Your task to perform on an android device: turn notification dots on Image 0: 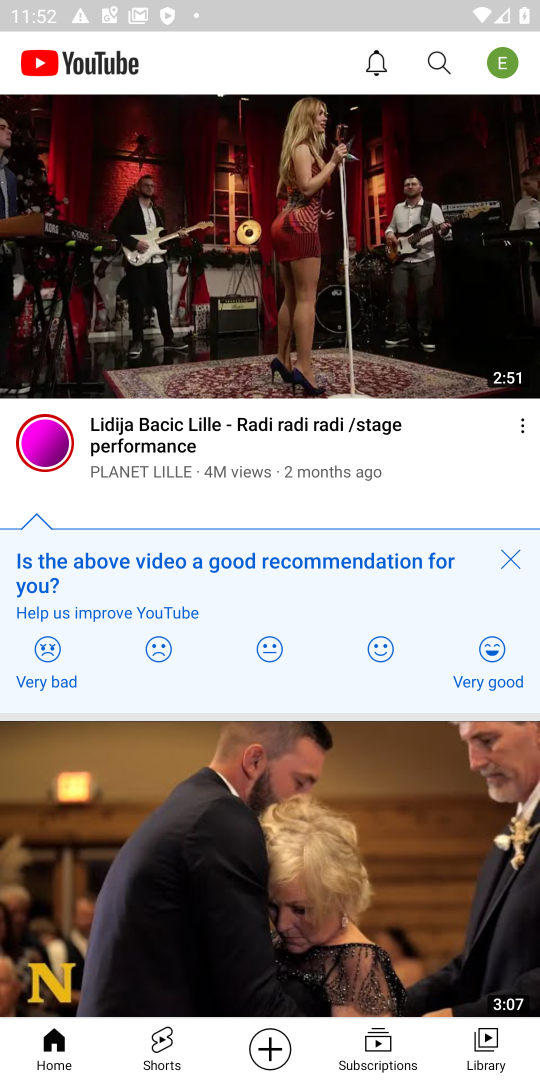
Step 0: press home button
Your task to perform on an android device: turn notification dots on Image 1: 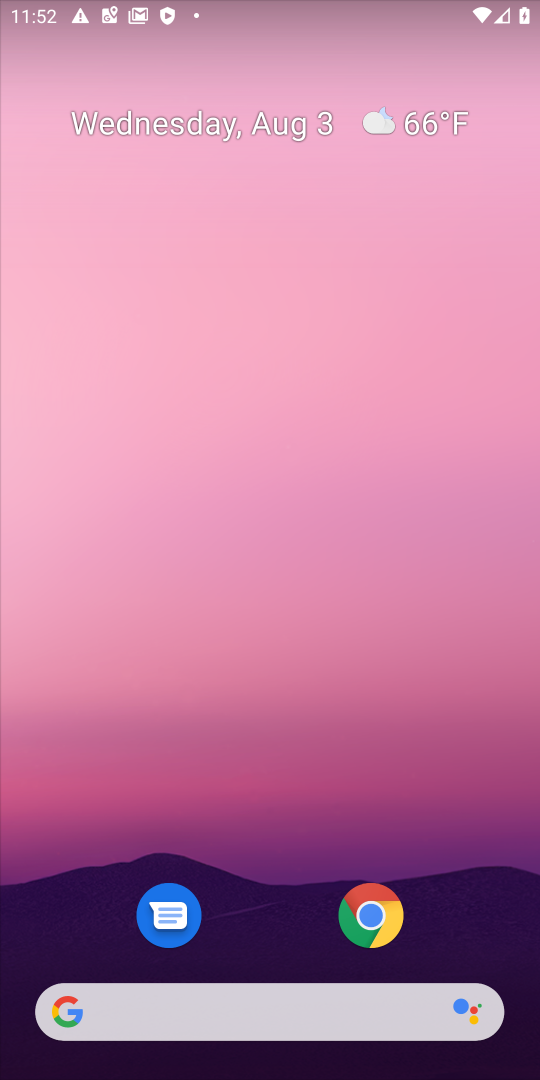
Step 1: drag from (313, 147) to (321, 40)
Your task to perform on an android device: turn notification dots on Image 2: 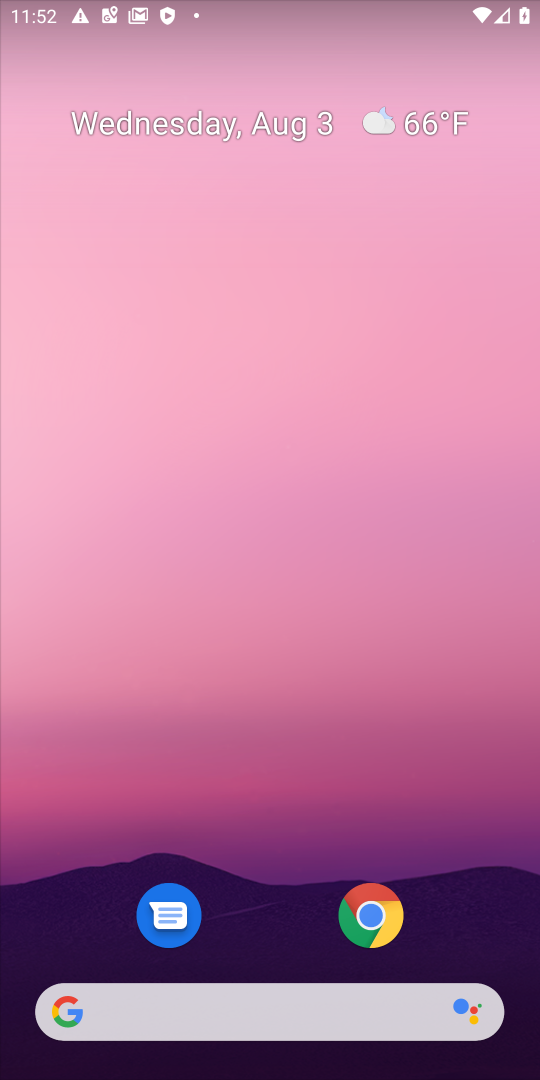
Step 2: drag from (306, 825) to (374, 74)
Your task to perform on an android device: turn notification dots on Image 3: 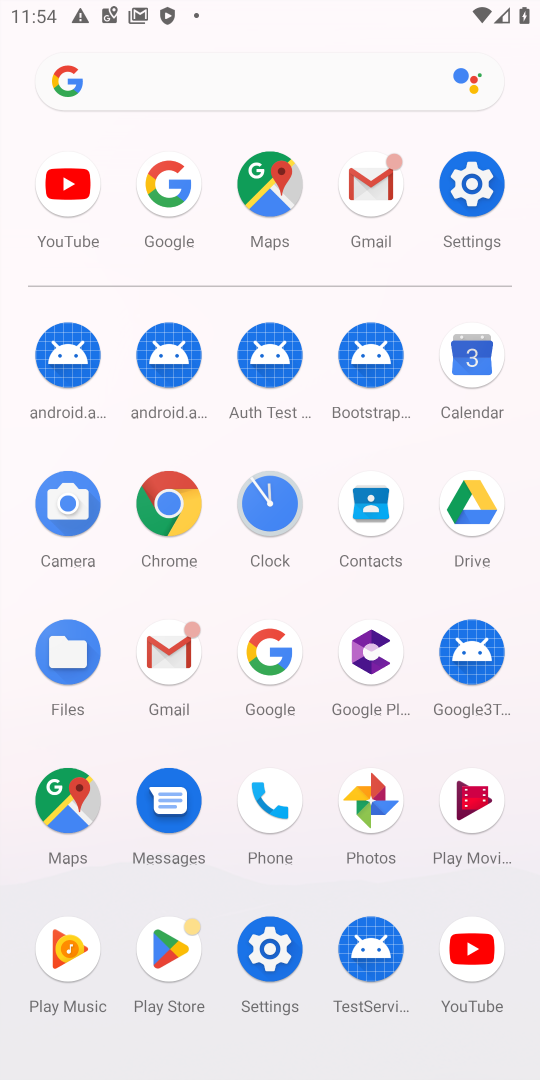
Step 3: click (475, 179)
Your task to perform on an android device: turn notification dots on Image 4: 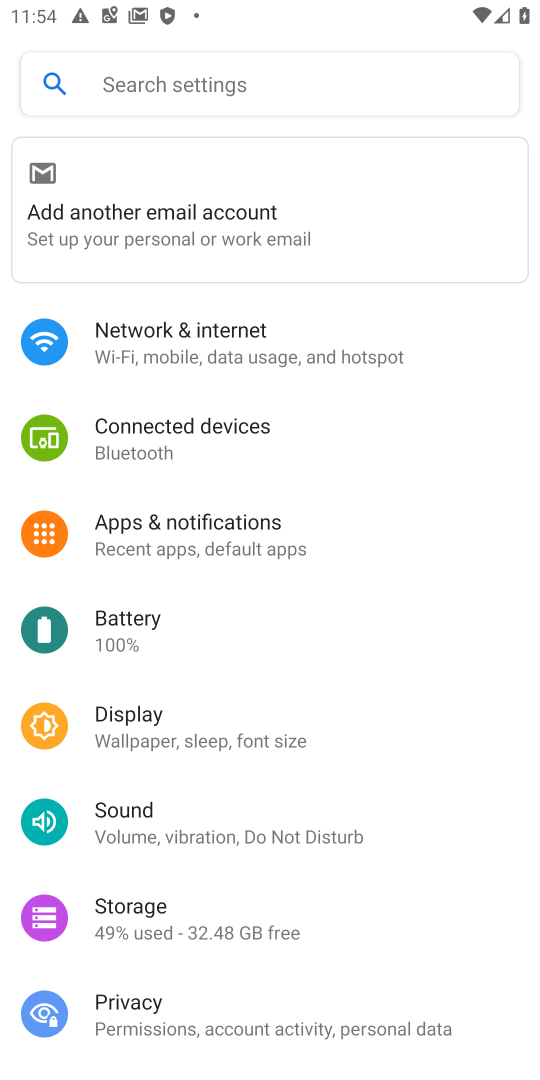
Step 4: click (93, 531)
Your task to perform on an android device: turn notification dots on Image 5: 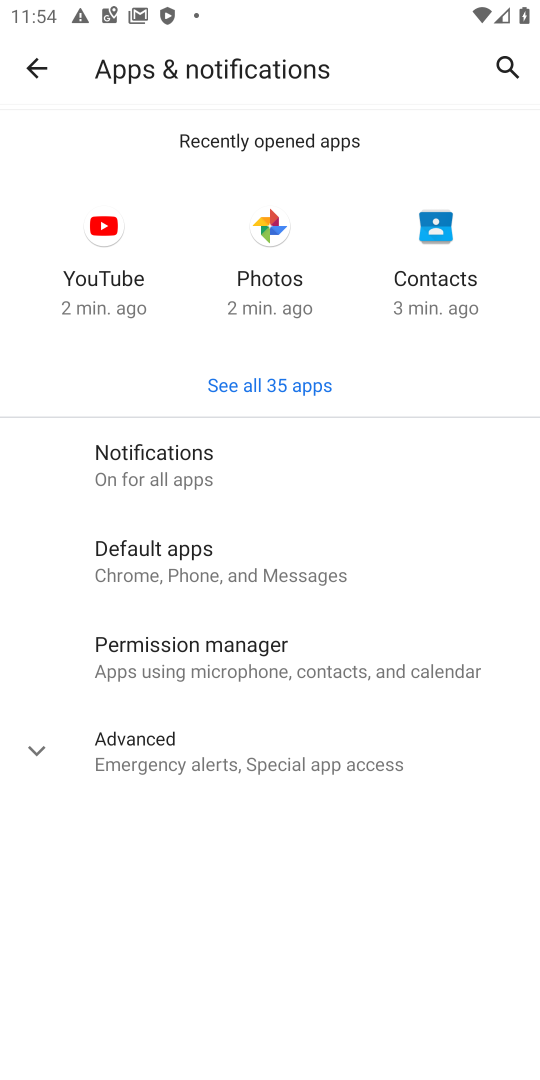
Step 5: click (111, 743)
Your task to perform on an android device: turn notification dots on Image 6: 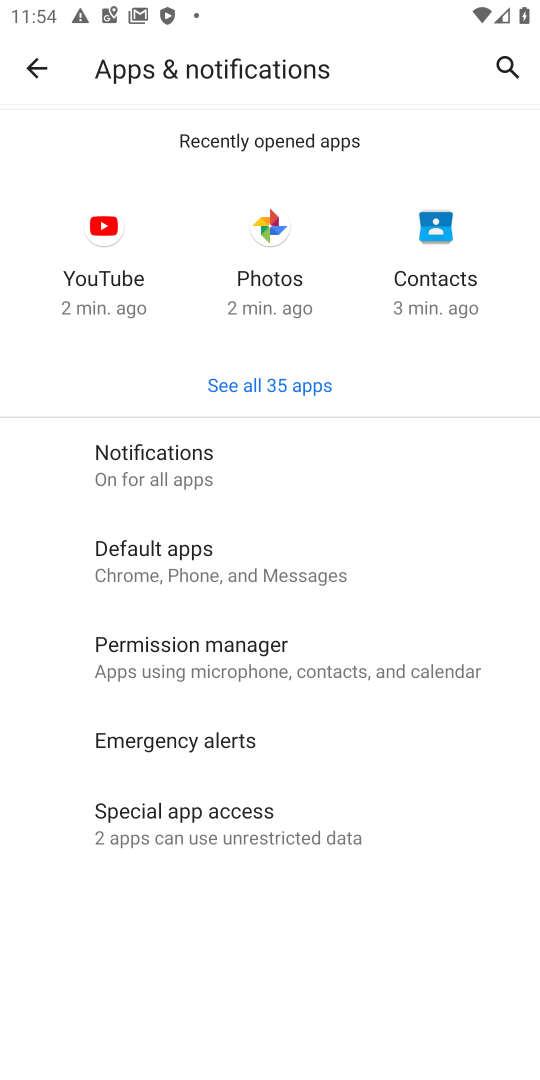
Step 6: click (170, 445)
Your task to perform on an android device: turn notification dots on Image 7: 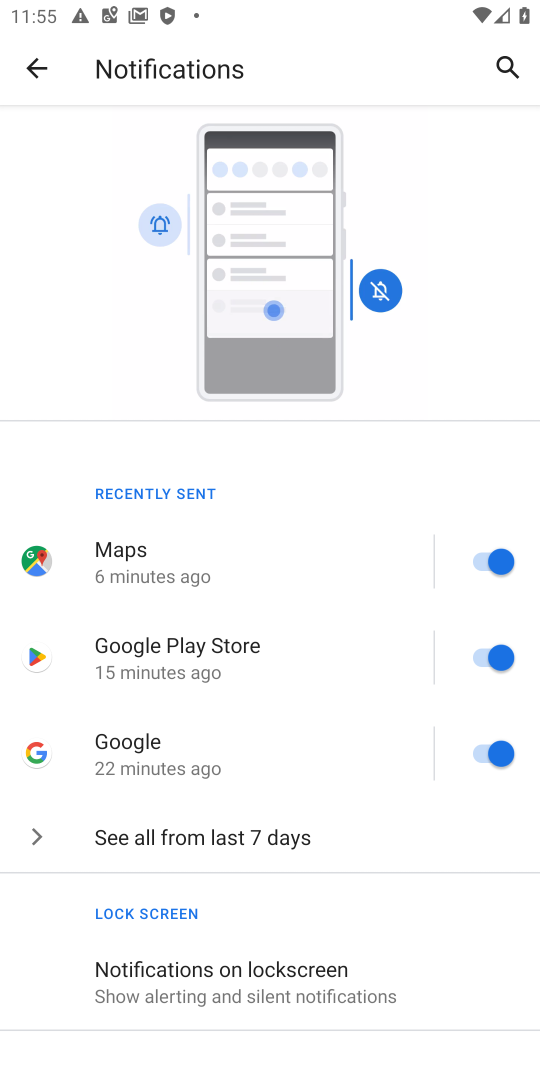
Step 7: drag from (323, 566) to (323, 396)
Your task to perform on an android device: turn notification dots on Image 8: 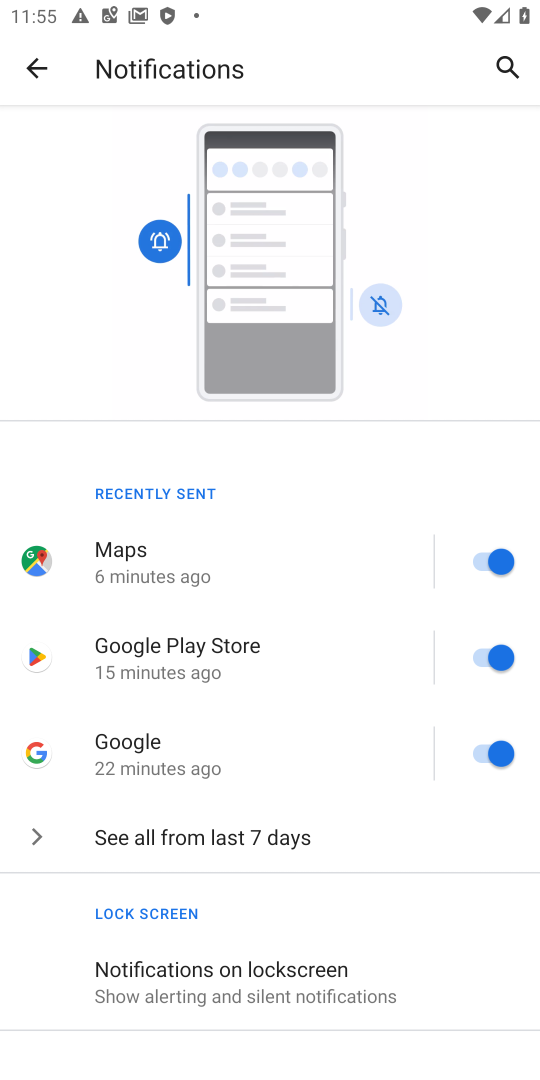
Step 8: drag from (217, 916) to (258, 476)
Your task to perform on an android device: turn notification dots on Image 9: 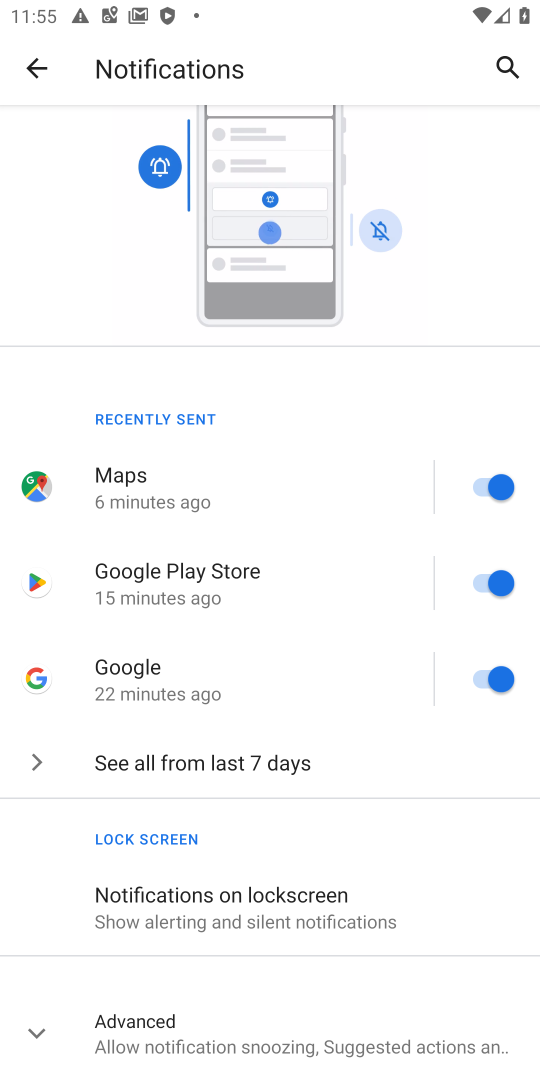
Step 9: click (164, 1047)
Your task to perform on an android device: turn notification dots on Image 10: 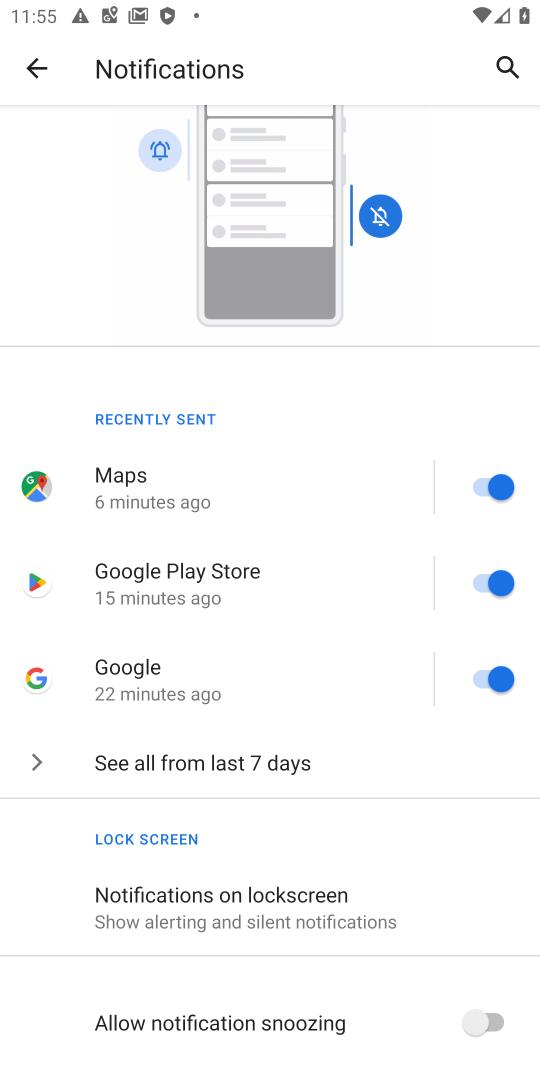
Step 10: task complete